Your task to perform on an android device: see sites visited before in the chrome app Image 0: 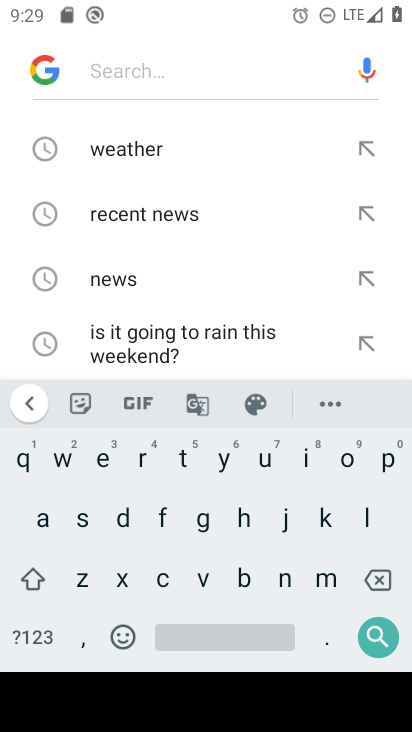
Step 0: press home button
Your task to perform on an android device: see sites visited before in the chrome app Image 1: 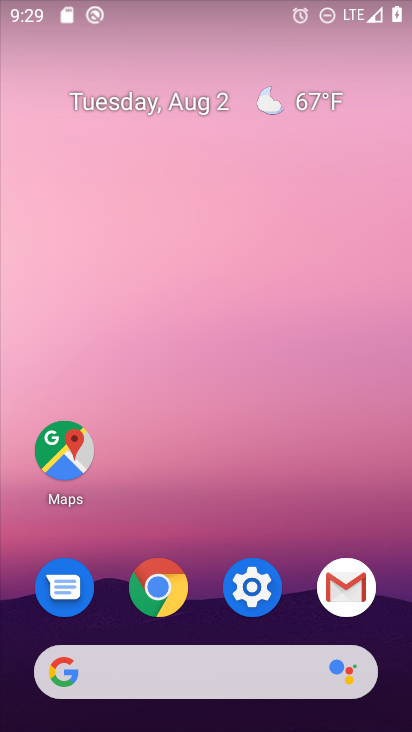
Step 1: click (143, 597)
Your task to perform on an android device: see sites visited before in the chrome app Image 2: 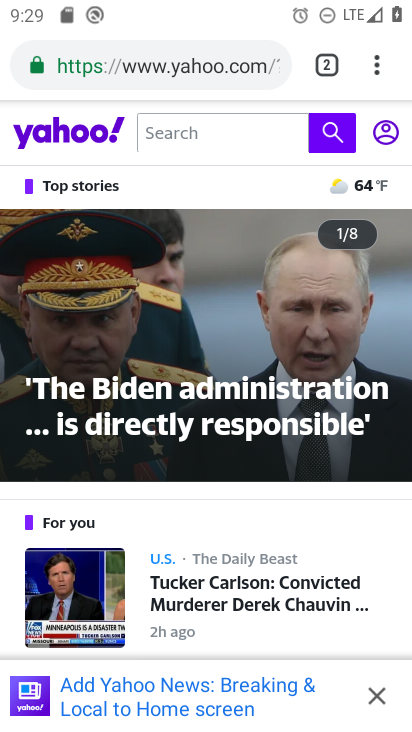
Step 2: click (370, 74)
Your task to perform on an android device: see sites visited before in the chrome app Image 3: 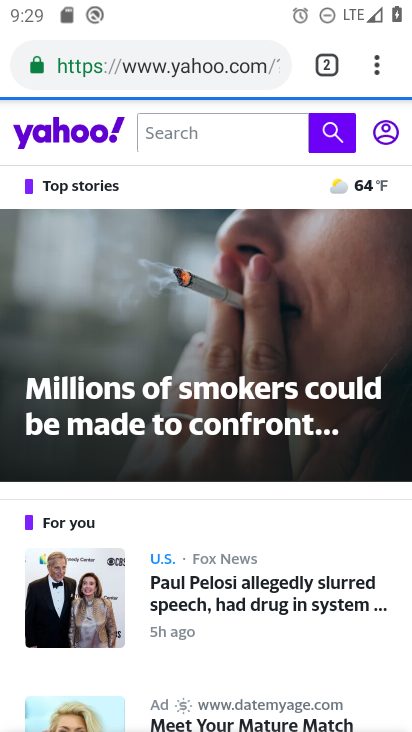
Step 3: click (359, 72)
Your task to perform on an android device: see sites visited before in the chrome app Image 4: 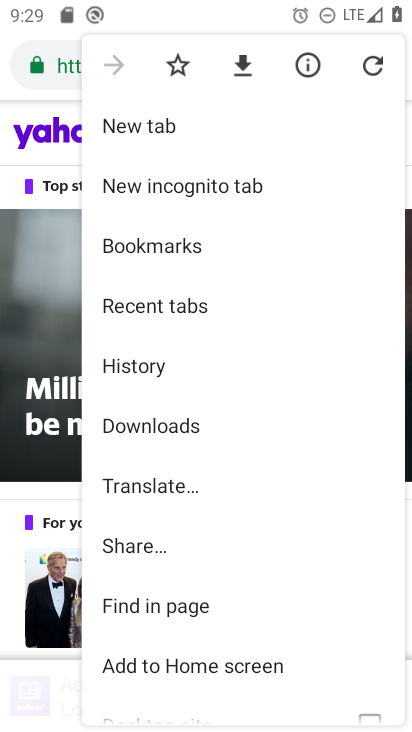
Step 4: drag from (185, 602) to (178, 341)
Your task to perform on an android device: see sites visited before in the chrome app Image 5: 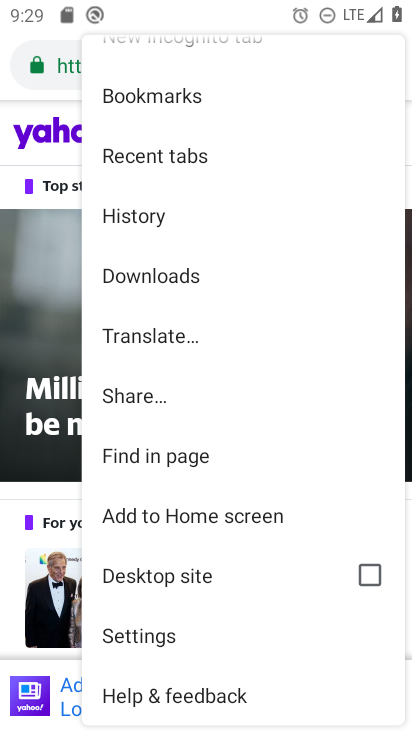
Step 5: click (149, 630)
Your task to perform on an android device: see sites visited before in the chrome app Image 6: 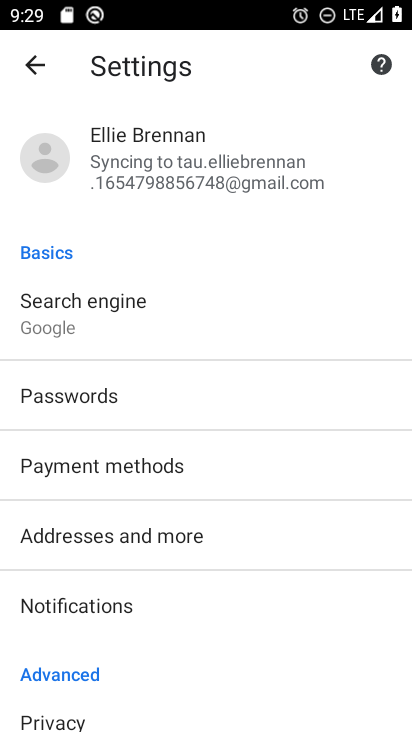
Step 6: drag from (126, 663) to (149, 438)
Your task to perform on an android device: see sites visited before in the chrome app Image 7: 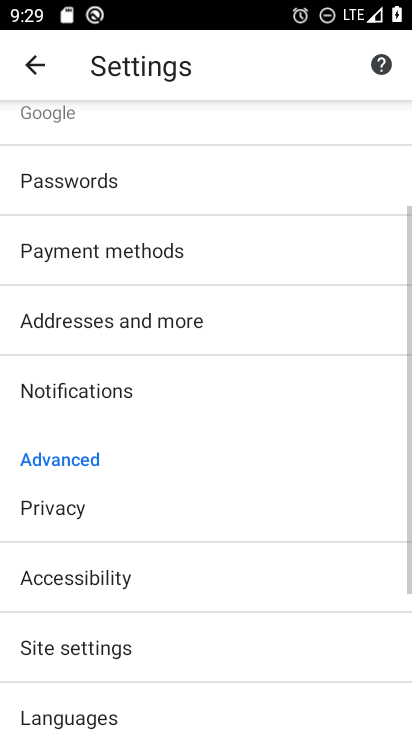
Step 7: click (179, 171)
Your task to perform on an android device: see sites visited before in the chrome app Image 8: 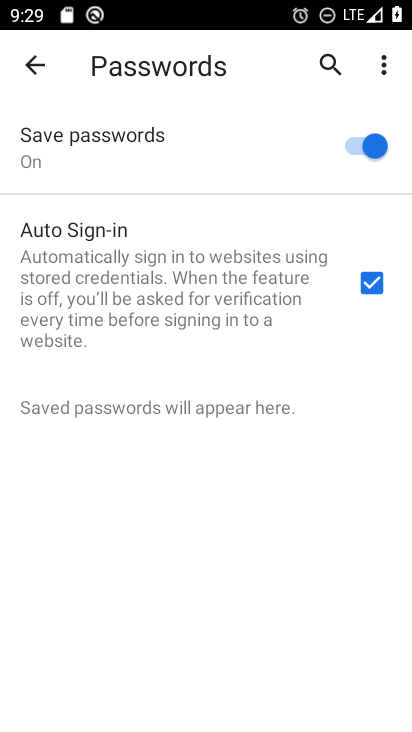
Step 8: click (92, 651)
Your task to perform on an android device: see sites visited before in the chrome app Image 9: 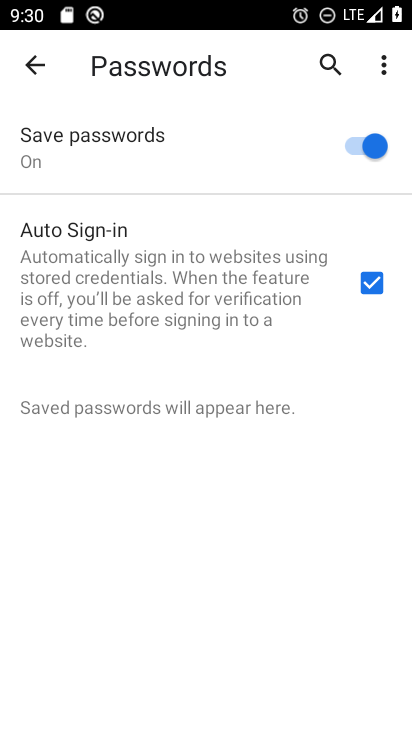
Step 9: click (35, 67)
Your task to perform on an android device: see sites visited before in the chrome app Image 10: 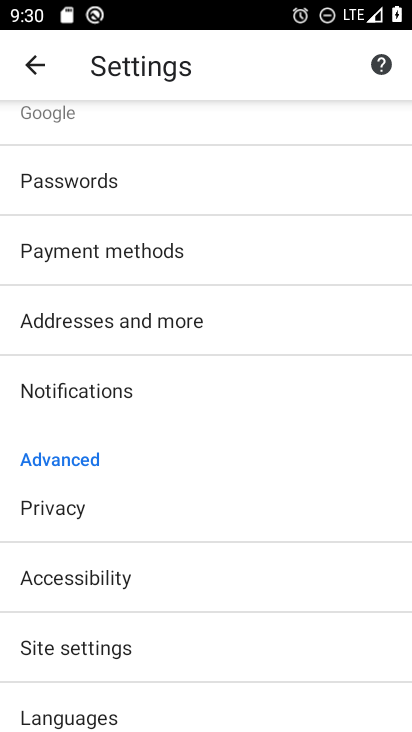
Step 10: click (109, 646)
Your task to perform on an android device: see sites visited before in the chrome app Image 11: 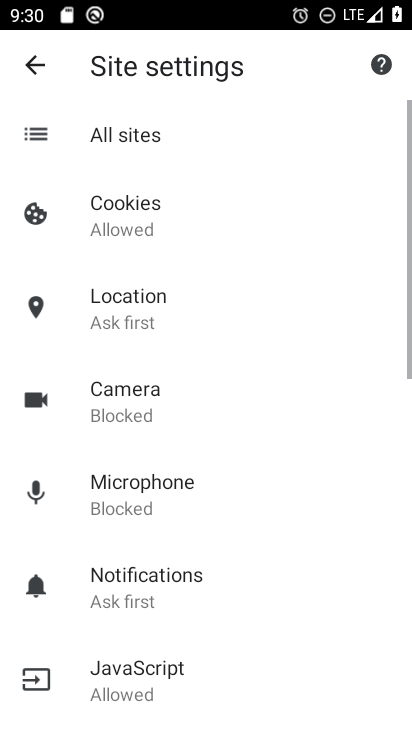
Step 11: click (131, 139)
Your task to perform on an android device: see sites visited before in the chrome app Image 12: 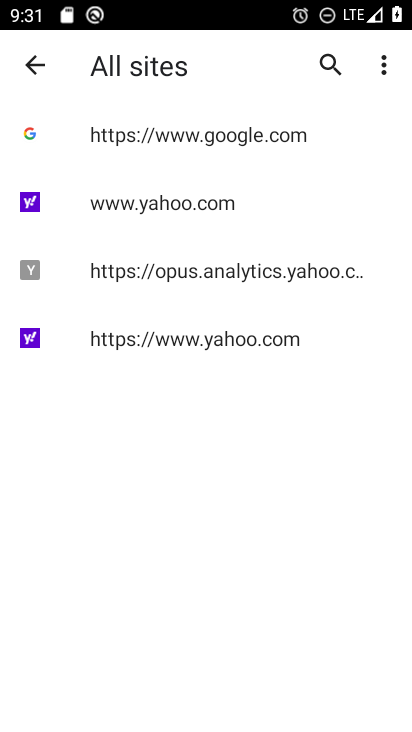
Step 12: task complete